Your task to perform on an android device: What's the price of the Galaxy phone? Image 0: 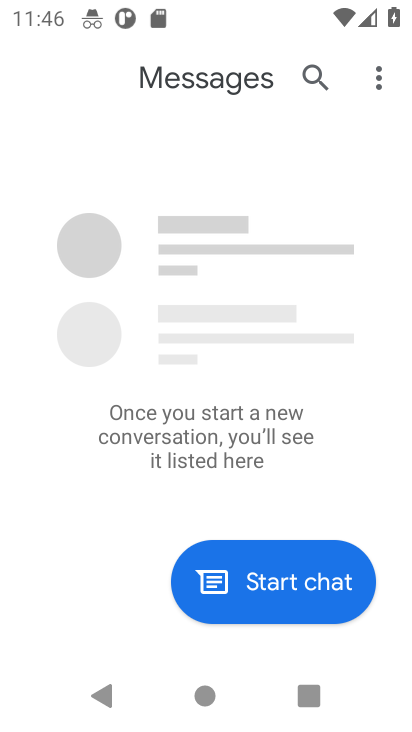
Step 0: press home button
Your task to perform on an android device: What's the price of the Galaxy phone? Image 1: 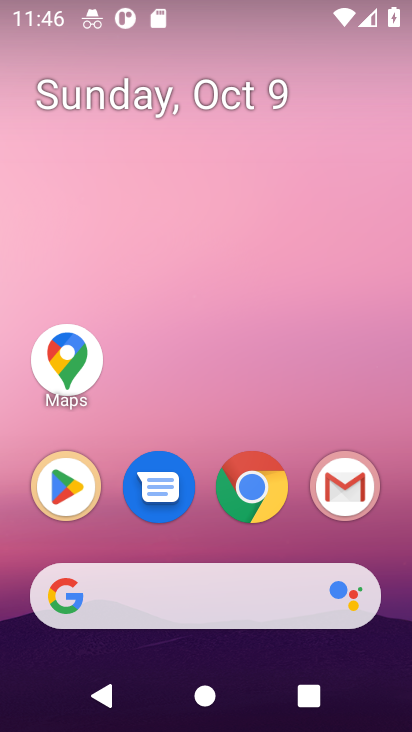
Step 1: click (264, 506)
Your task to perform on an android device: What's the price of the Galaxy phone? Image 2: 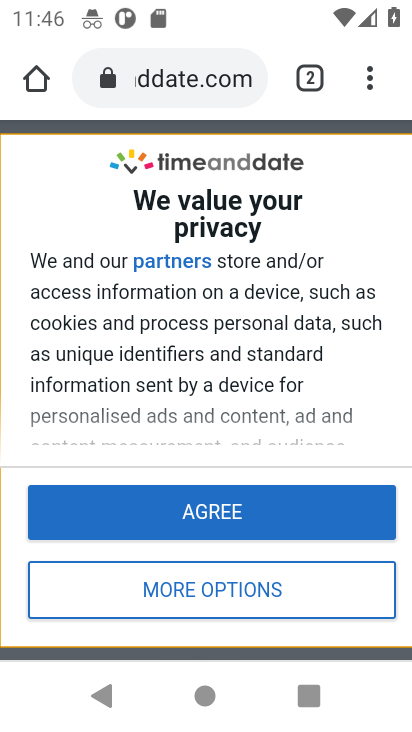
Step 2: click (204, 85)
Your task to perform on an android device: What's the price of the Galaxy phone? Image 3: 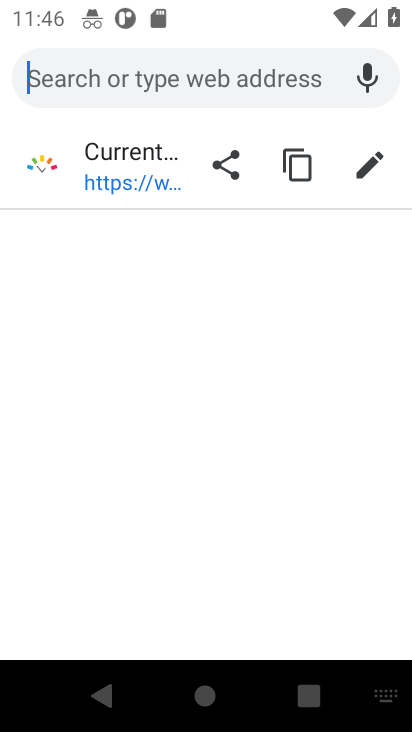
Step 3: type "price of the galaxy phone"
Your task to perform on an android device: What's the price of the Galaxy phone? Image 4: 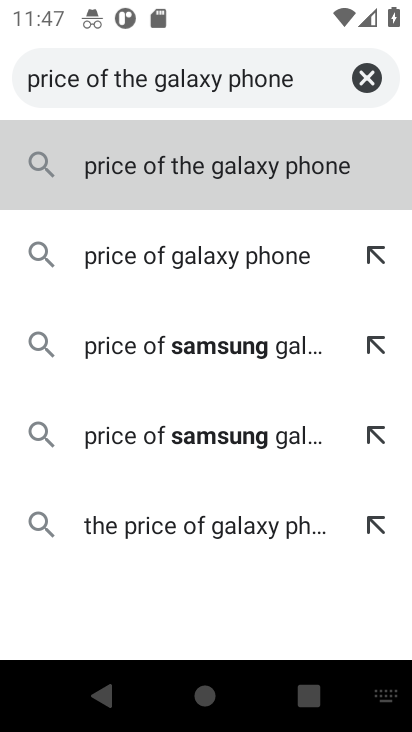
Step 4: press enter
Your task to perform on an android device: What's the price of the Galaxy phone? Image 5: 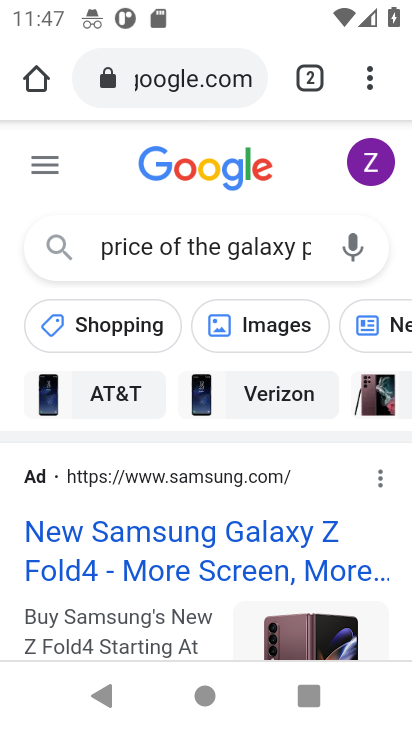
Step 5: drag from (161, 566) to (188, 498)
Your task to perform on an android device: What's the price of the Galaxy phone? Image 6: 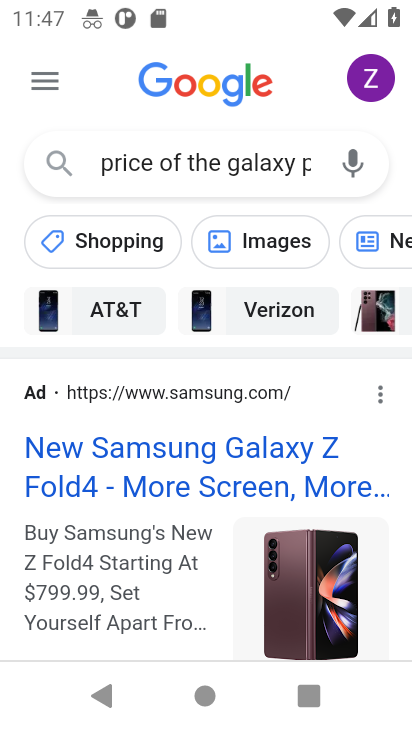
Step 6: click (163, 463)
Your task to perform on an android device: What's the price of the Galaxy phone? Image 7: 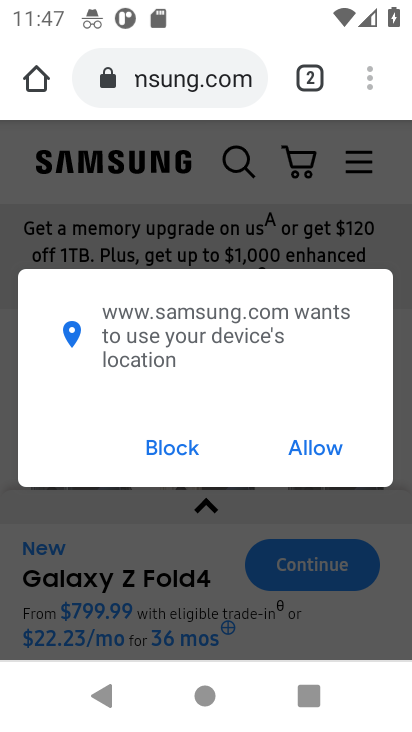
Step 7: click (298, 444)
Your task to perform on an android device: What's the price of the Galaxy phone? Image 8: 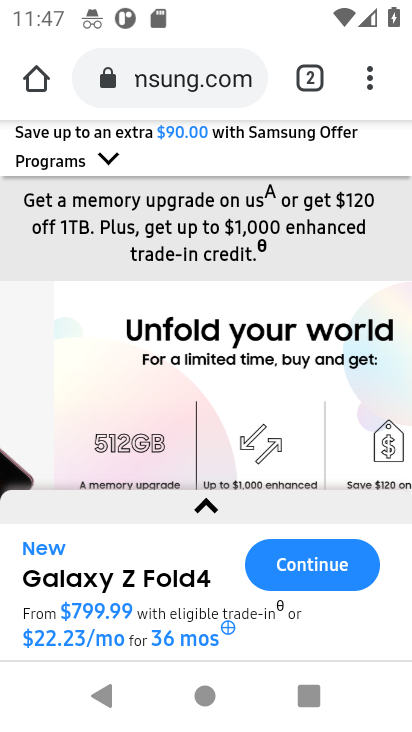
Step 8: drag from (292, 607) to (301, 344)
Your task to perform on an android device: What's the price of the Galaxy phone? Image 9: 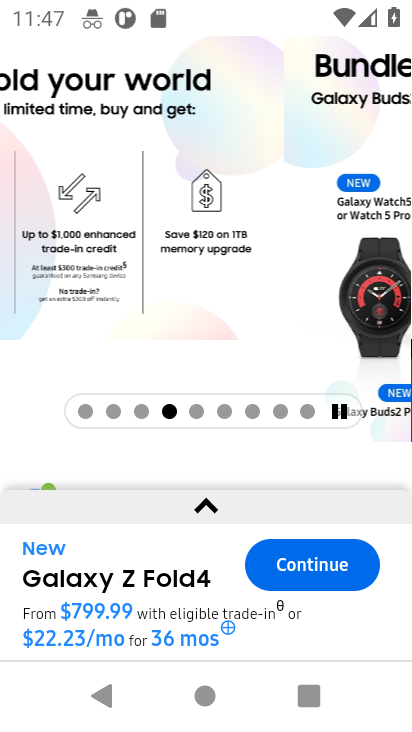
Step 9: drag from (240, 436) to (240, 239)
Your task to perform on an android device: What's the price of the Galaxy phone? Image 10: 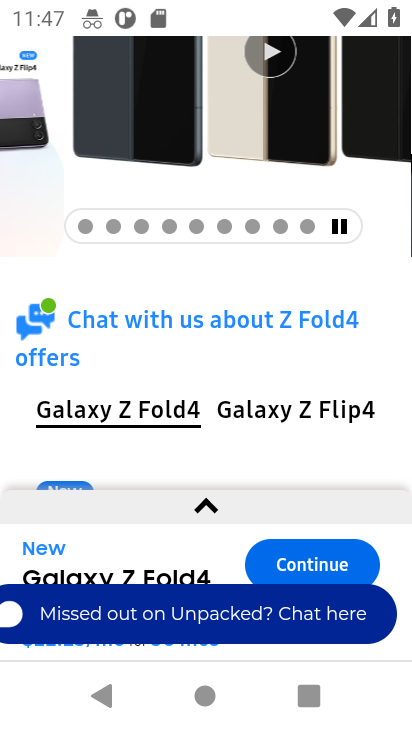
Step 10: drag from (267, 393) to (263, 185)
Your task to perform on an android device: What's the price of the Galaxy phone? Image 11: 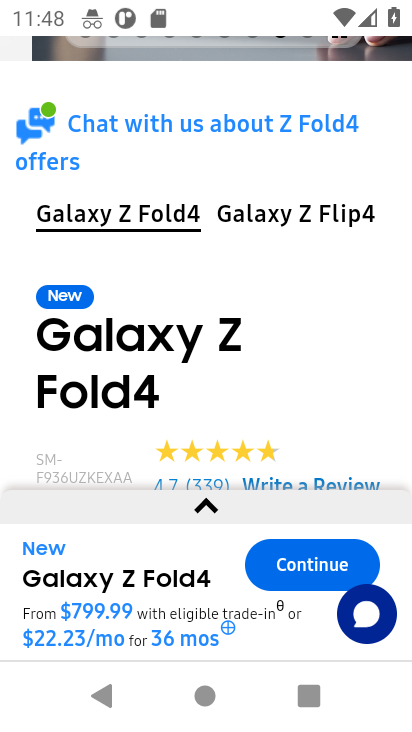
Step 11: drag from (235, 418) to (266, 235)
Your task to perform on an android device: What's the price of the Galaxy phone? Image 12: 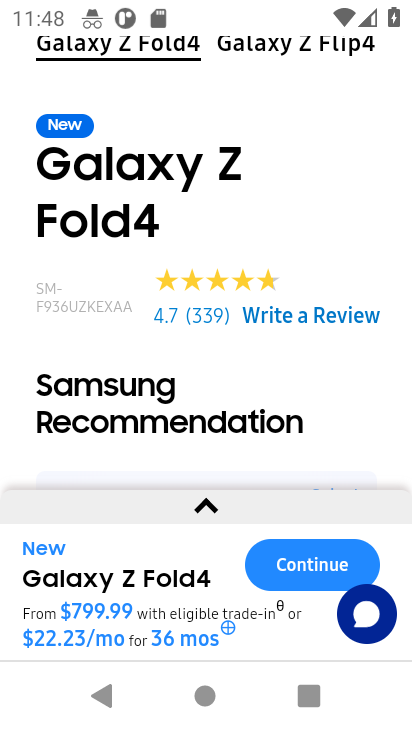
Step 12: drag from (262, 436) to (257, 248)
Your task to perform on an android device: What's the price of the Galaxy phone? Image 13: 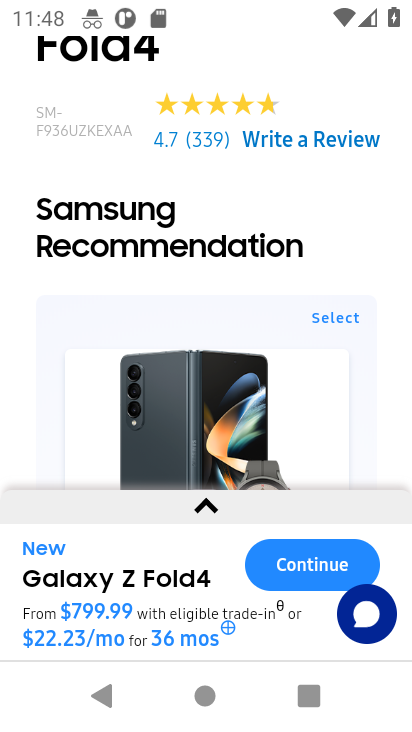
Step 13: click (294, 560)
Your task to perform on an android device: What's the price of the Galaxy phone? Image 14: 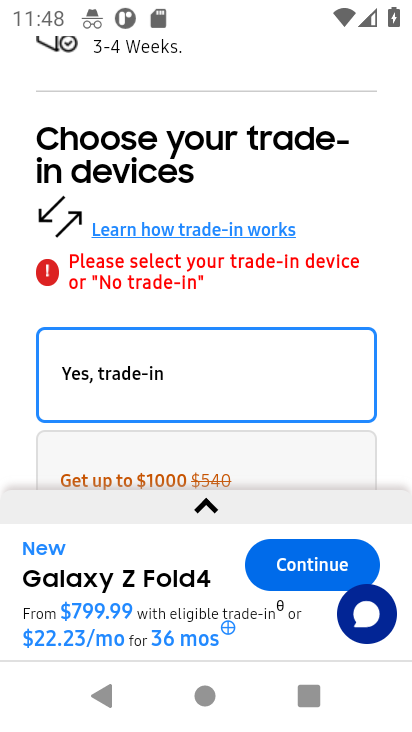
Step 14: task complete